Your task to perform on an android device: open app "Skype" (install if not already installed) and go to login screen Image 0: 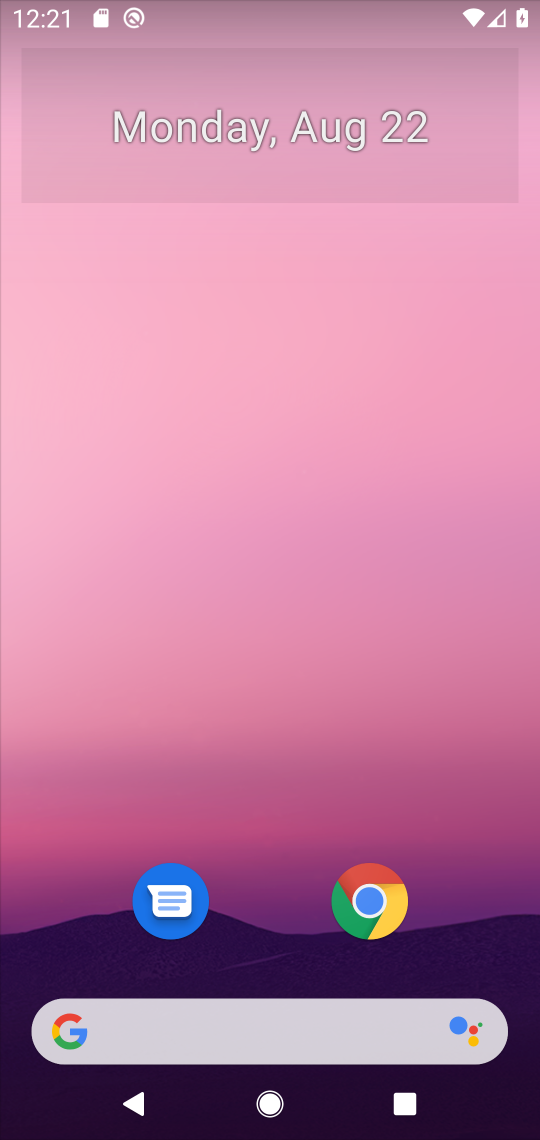
Step 0: drag from (287, 872) to (287, 328)
Your task to perform on an android device: open app "Skype" (install if not already installed) and go to login screen Image 1: 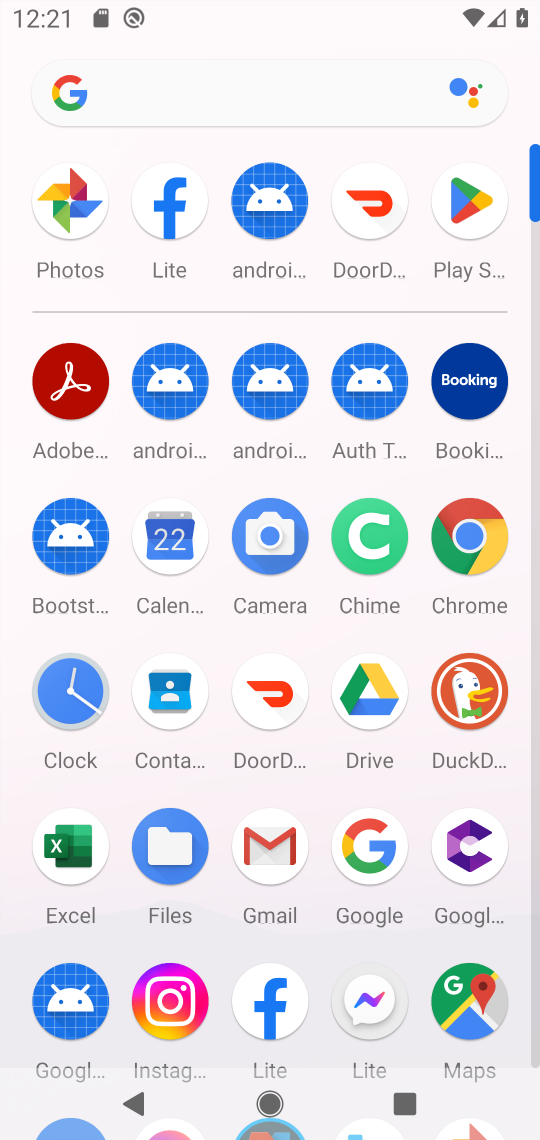
Step 1: click (452, 254)
Your task to perform on an android device: open app "Skype" (install if not already installed) and go to login screen Image 2: 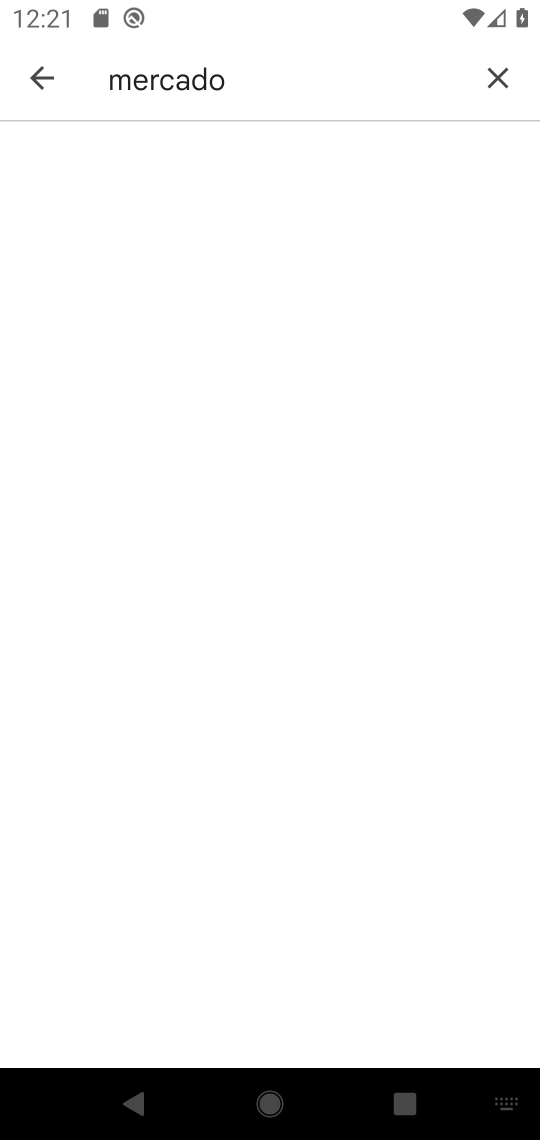
Step 2: click (485, 96)
Your task to perform on an android device: open app "Skype" (install if not already installed) and go to login screen Image 3: 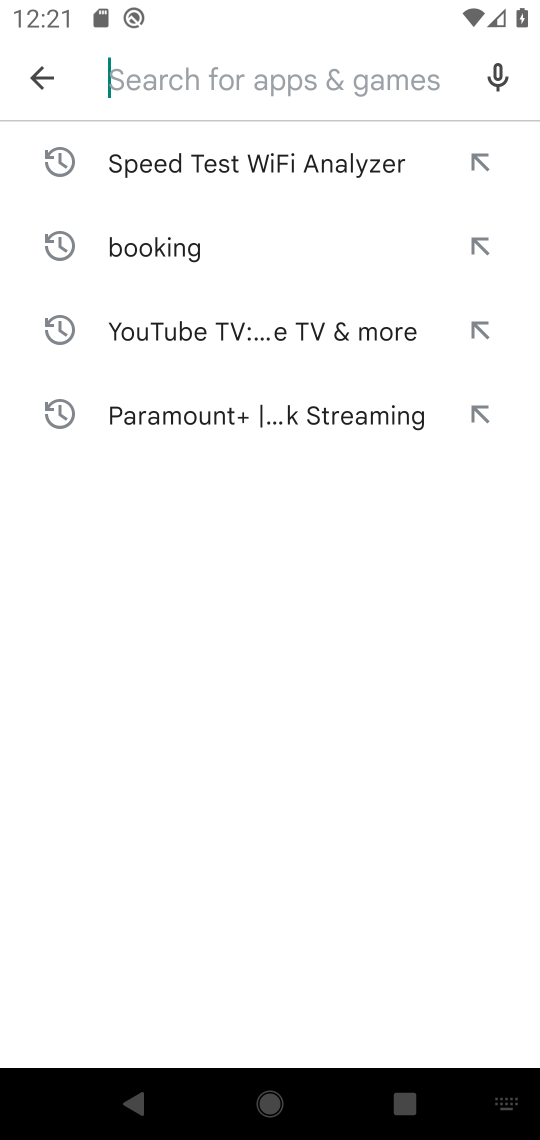
Step 3: type "skype"
Your task to perform on an android device: open app "Skype" (install if not already installed) and go to login screen Image 4: 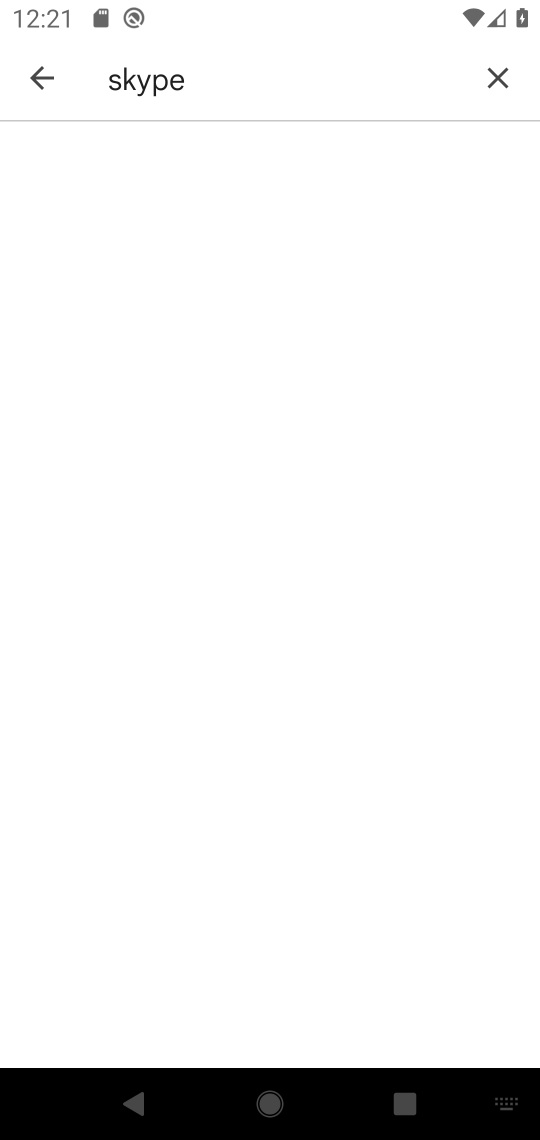
Step 4: task complete